Your task to perform on an android device: Open Google Chrome and click the shortcut for Amazon.com Image 0: 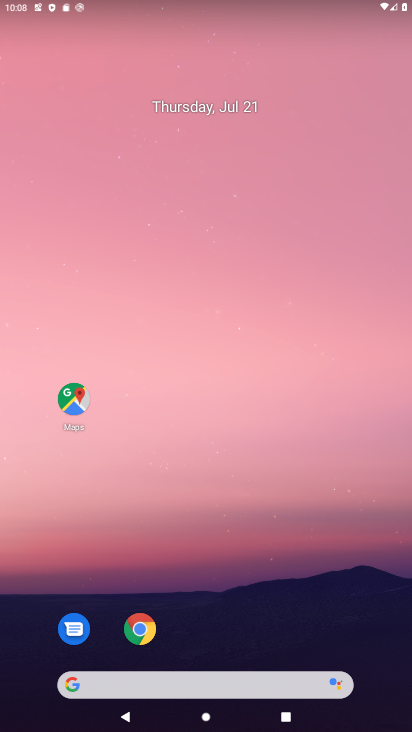
Step 0: click (149, 630)
Your task to perform on an android device: Open Google Chrome and click the shortcut for Amazon.com Image 1: 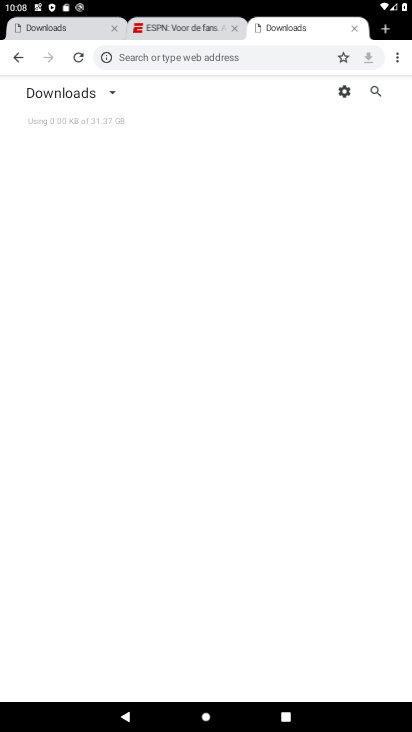
Step 1: click (387, 33)
Your task to perform on an android device: Open Google Chrome and click the shortcut for Amazon.com Image 2: 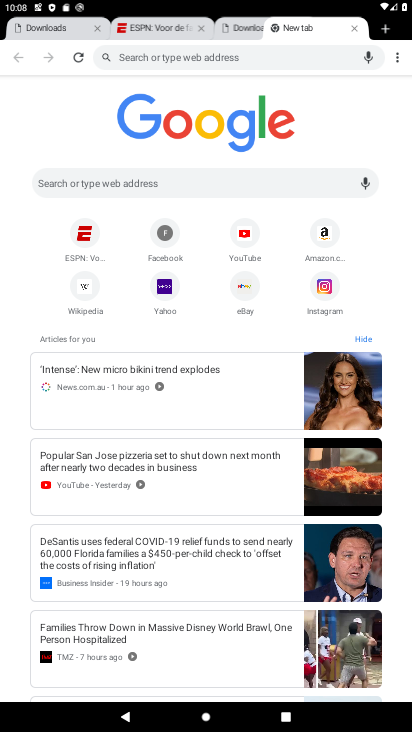
Step 2: click (326, 224)
Your task to perform on an android device: Open Google Chrome and click the shortcut for Amazon.com Image 3: 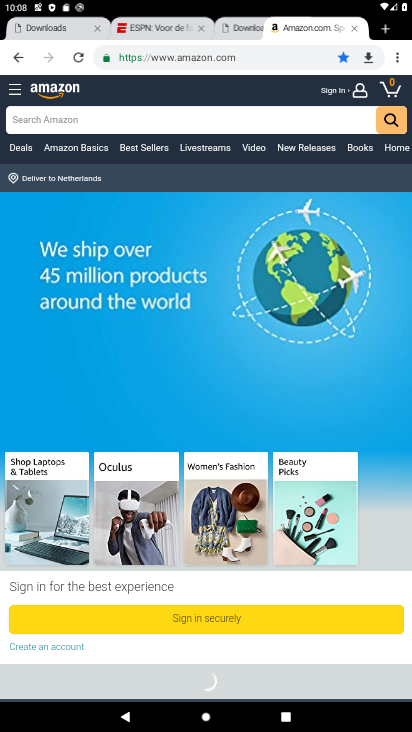
Step 3: task complete